Your task to perform on an android device: Open Yahoo.com Image 0: 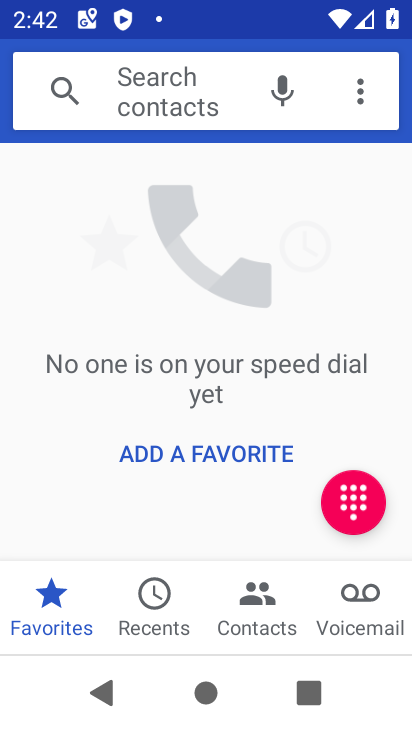
Step 0: press home button
Your task to perform on an android device: Open Yahoo.com Image 1: 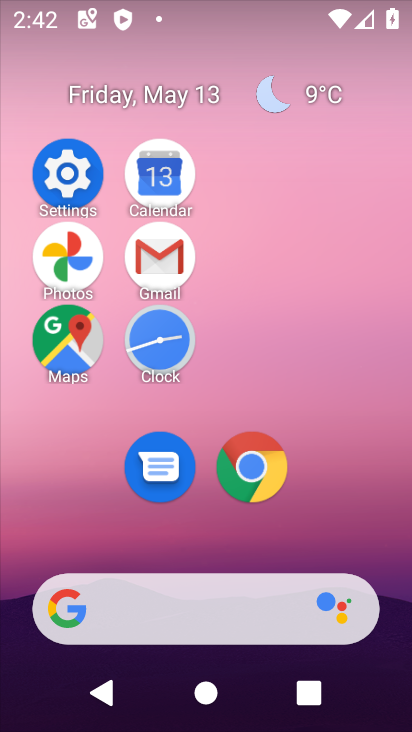
Step 1: click (253, 489)
Your task to perform on an android device: Open Yahoo.com Image 2: 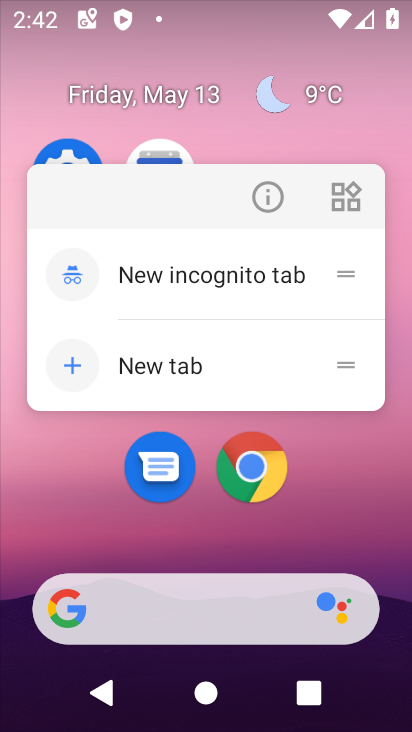
Step 2: click (253, 489)
Your task to perform on an android device: Open Yahoo.com Image 3: 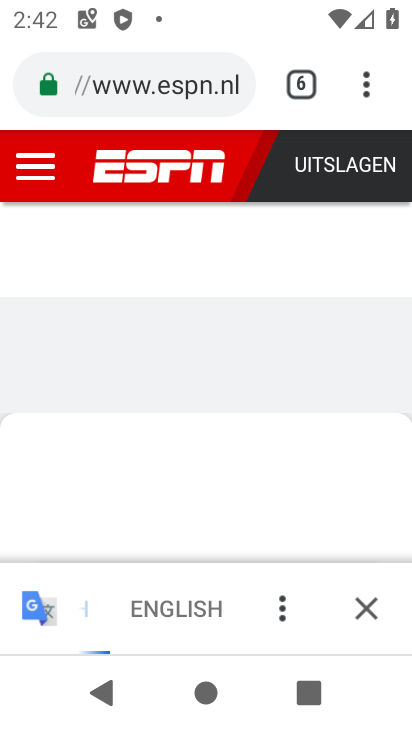
Step 3: click (309, 73)
Your task to perform on an android device: Open Yahoo.com Image 4: 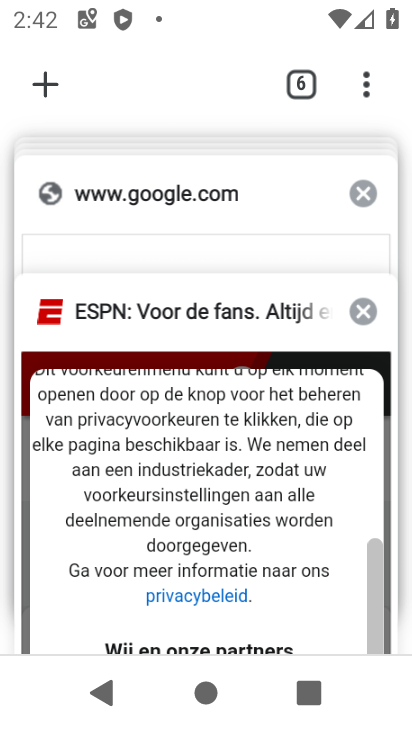
Step 4: click (291, 85)
Your task to perform on an android device: Open Yahoo.com Image 5: 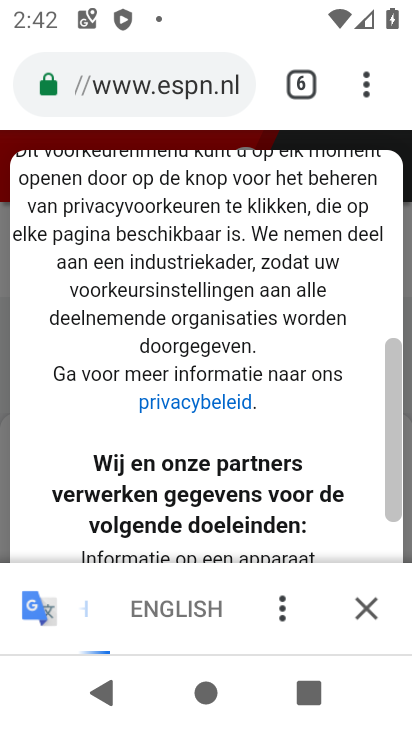
Step 5: click (315, 90)
Your task to perform on an android device: Open Yahoo.com Image 6: 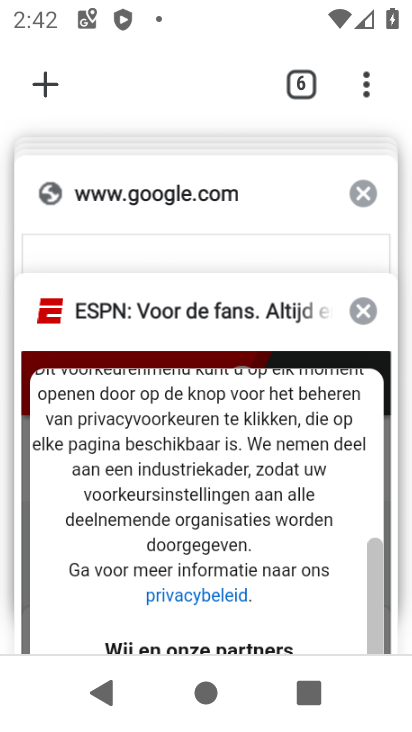
Step 6: drag from (178, 202) to (155, 581)
Your task to perform on an android device: Open Yahoo.com Image 7: 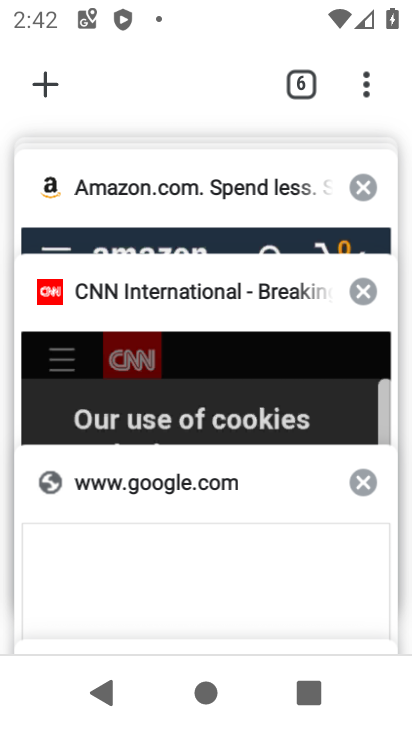
Step 7: click (15, 85)
Your task to perform on an android device: Open Yahoo.com Image 8: 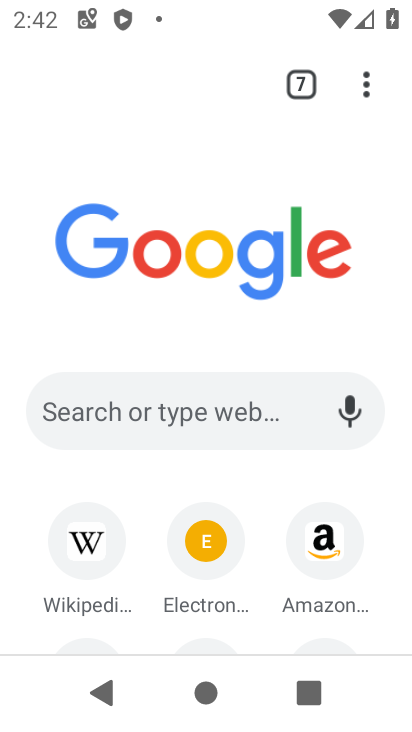
Step 8: drag from (236, 494) to (245, 225)
Your task to perform on an android device: Open Yahoo.com Image 9: 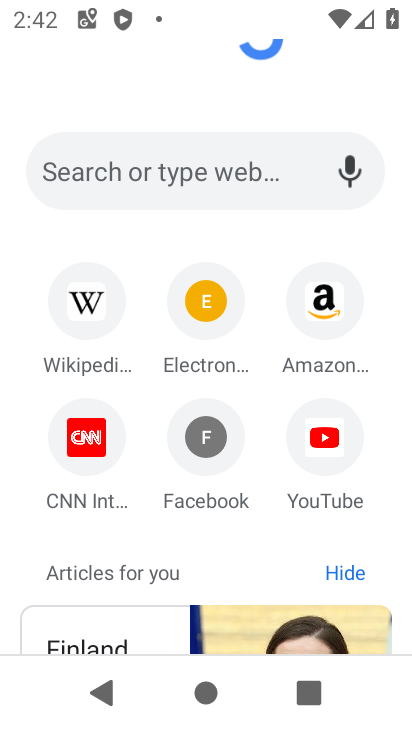
Step 9: click (203, 156)
Your task to perform on an android device: Open Yahoo.com Image 10: 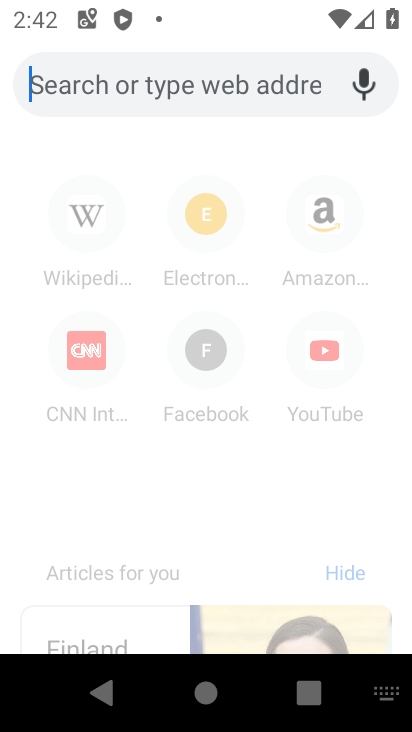
Step 10: type "yahoo"
Your task to perform on an android device: Open Yahoo.com Image 11: 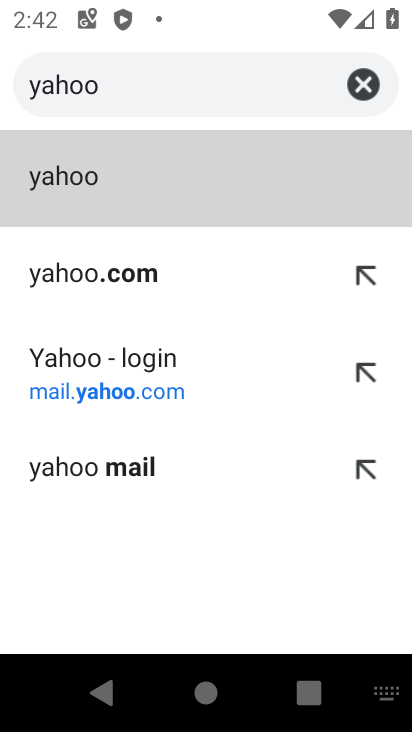
Step 11: click (128, 275)
Your task to perform on an android device: Open Yahoo.com Image 12: 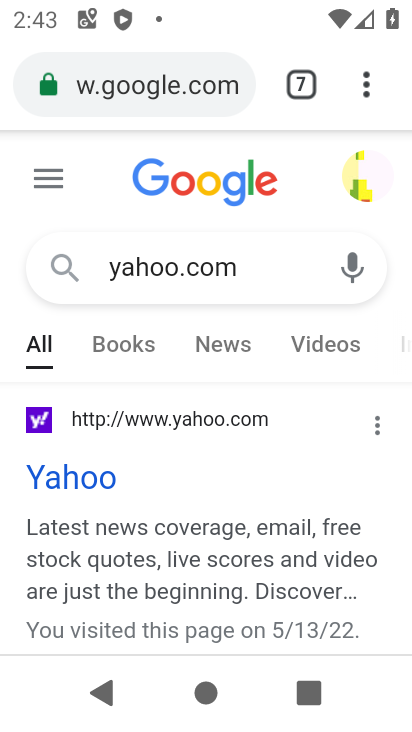
Step 12: click (110, 476)
Your task to perform on an android device: Open Yahoo.com Image 13: 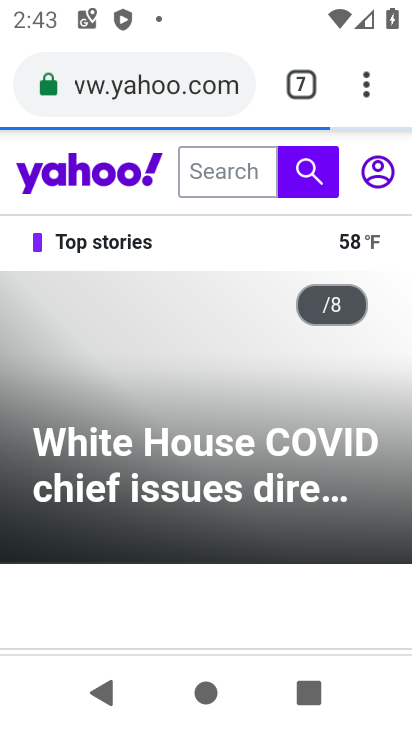
Step 13: task complete